Your task to perform on an android device: turn off javascript in the chrome app Image 0: 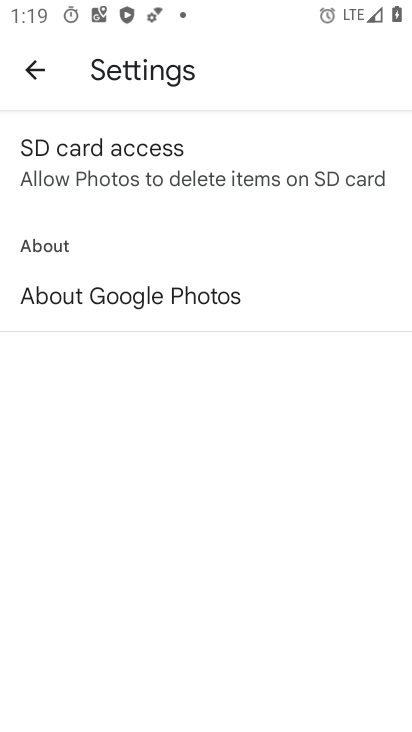
Step 0: press home button
Your task to perform on an android device: turn off javascript in the chrome app Image 1: 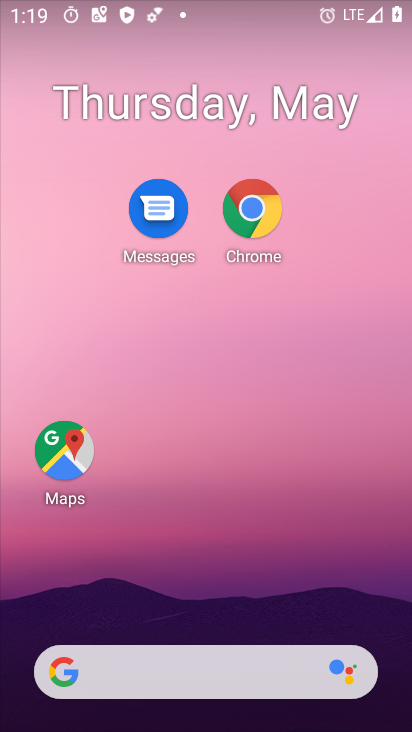
Step 1: click (254, 252)
Your task to perform on an android device: turn off javascript in the chrome app Image 2: 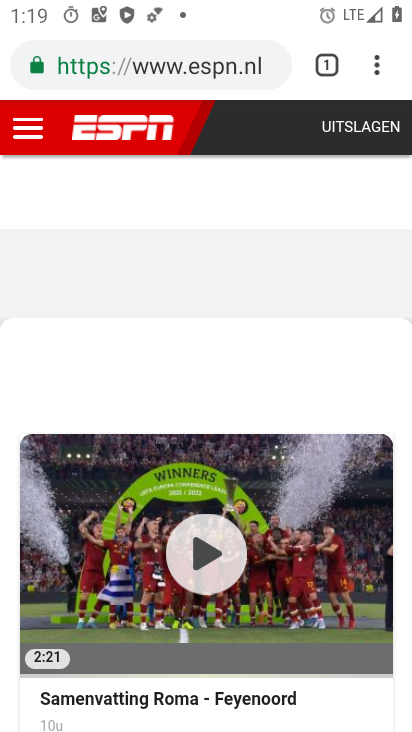
Step 2: click (373, 75)
Your task to perform on an android device: turn off javascript in the chrome app Image 3: 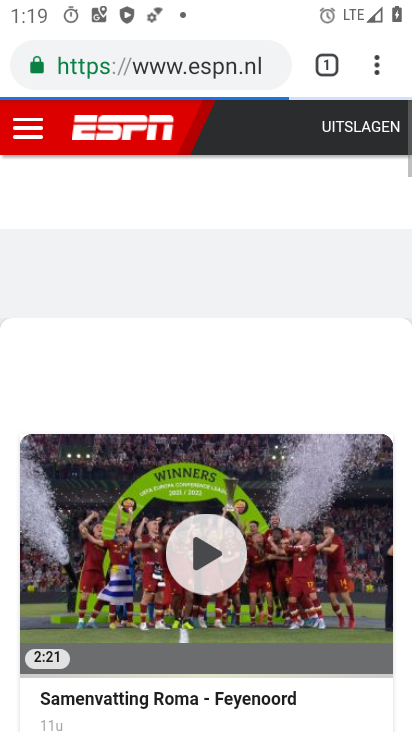
Step 3: click (375, 67)
Your task to perform on an android device: turn off javascript in the chrome app Image 4: 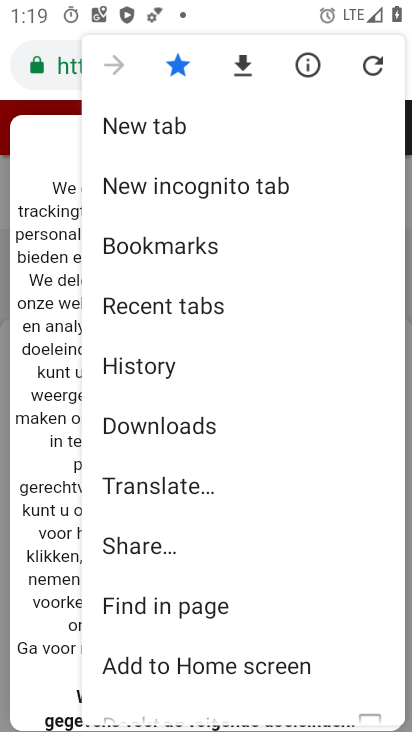
Step 4: drag from (167, 602) to (150, 299)
Your task to perform on an android device: turn off javascript in the chrome app Image 5: 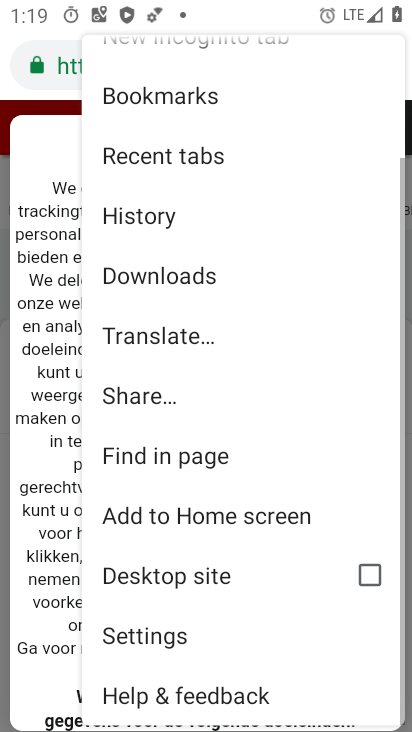
Step 5: click (144, 644)
Your task to perform on an android device: turn off javascript in the chrome app Image 6: 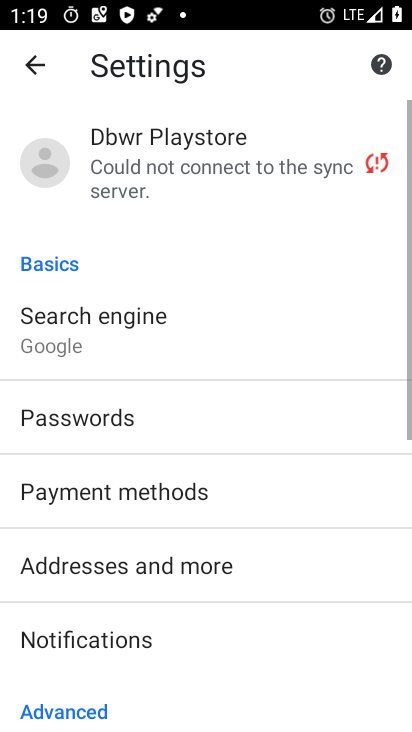
Step 6: drag from (149, 640) to (161, 344)
Your task to perform on an android device: turn off javascript in the chrome app Image 7: 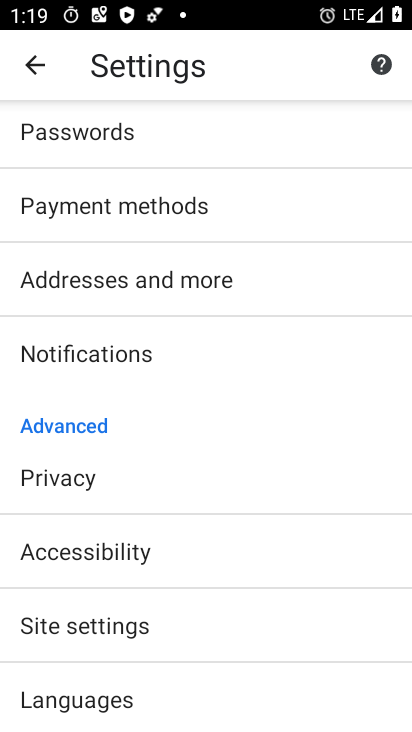
Step 7: drag from (114, 665) to (105, 414)
Your task to perform on an android device: turn off javascript in the chrome app Image 8: 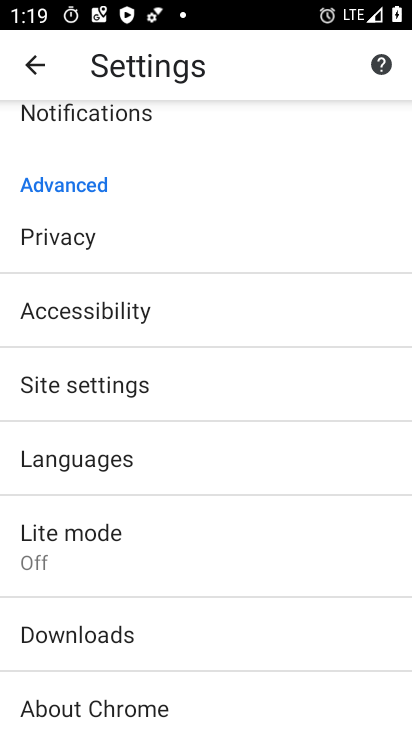
Step 8: click (111, 389)
Your task to perform on an android device: turn off javascript in the chrome app Image 9: 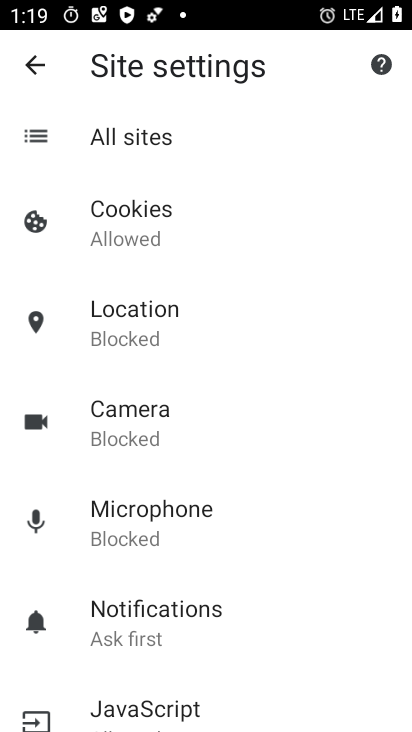
Step 9: drag from (186, 654) to (218, 363)
Your task to perform on an android device: turn off javascript in the chrome app Image 10: 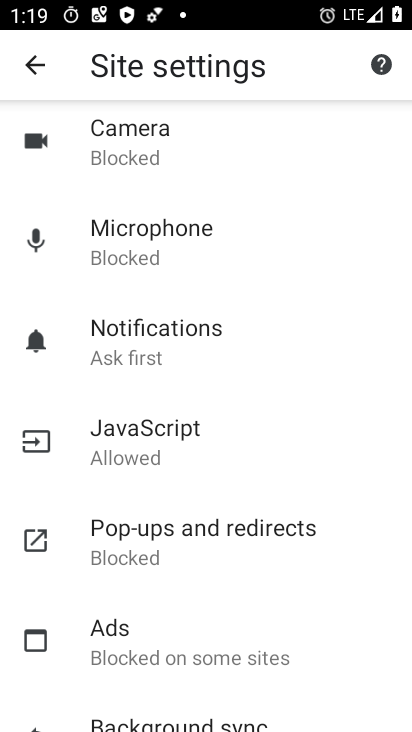
Step 10: drag from (176, 530) to (191, 335)
Your task to perform on an android device: turn off javascript in the chrome app Image 11: 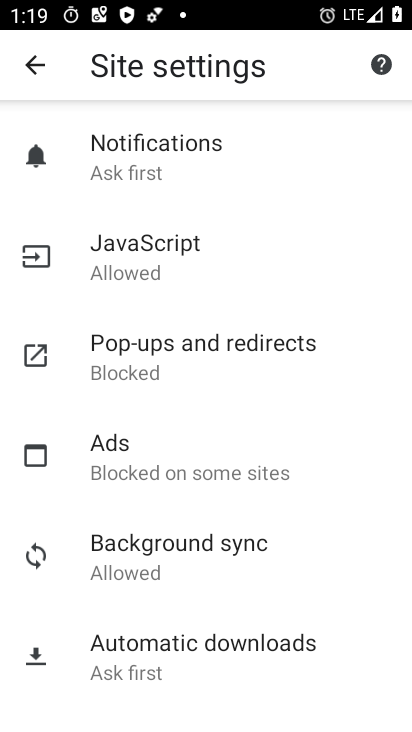
Step 11: click (171, 263)
Your task to perform on an android device: turn off javascript in the chrome app Image 12: 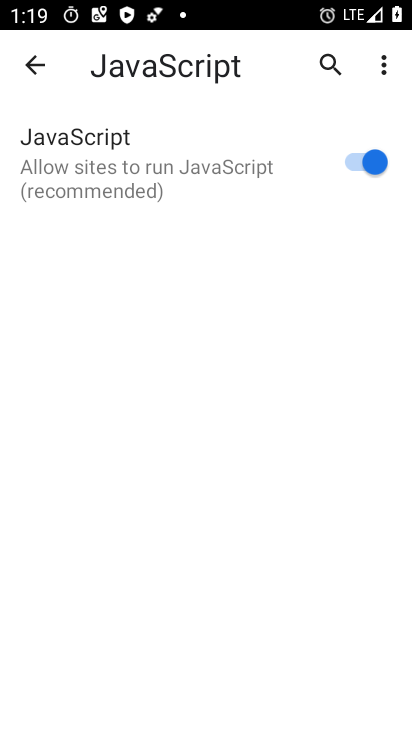
Step 12: click (349, 178)
Your task to perform on an android device: turn off javascript in the chrome app Image 13: 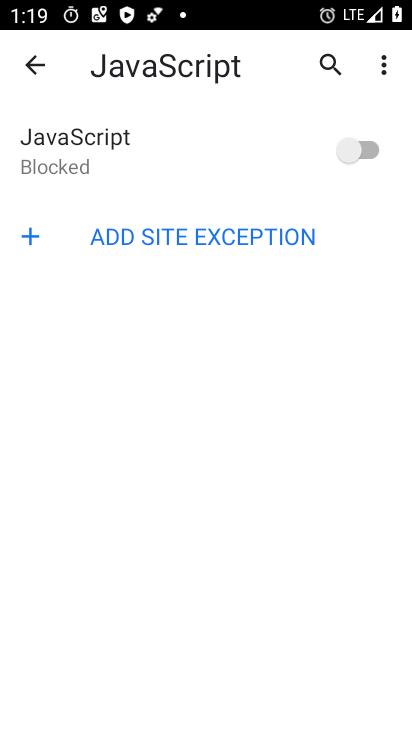
Step 13: task complete